Your task to perform on an android device: What is the recent news? Image 0: 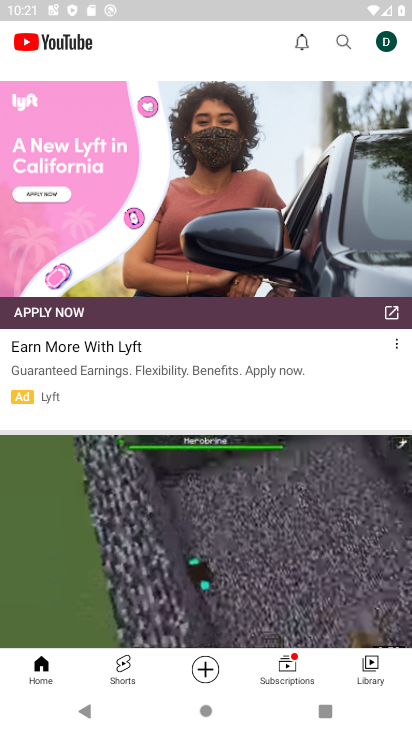
Step 0: press home button
Your task to perform on an android device: What is the recent news? Image 1: 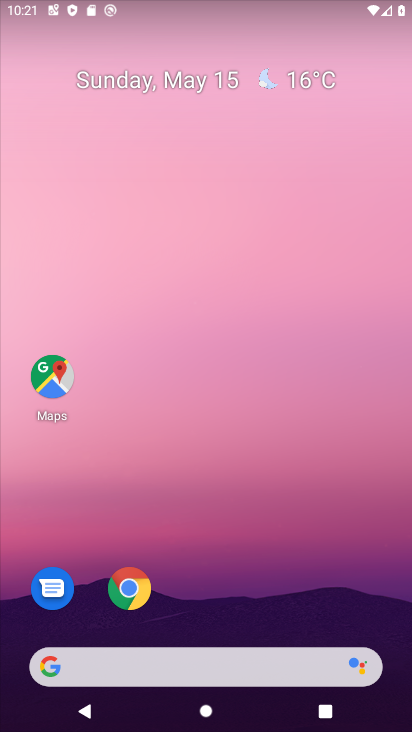
Step 1: click (209, 662)
Your task to perform on an android device: What is the recent news? Image 2: 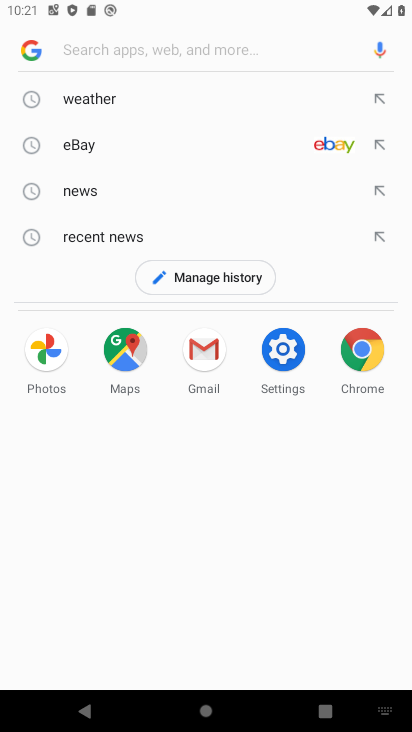
Step 2: click (140, 243)
Your task to perform on an android device: What is the recent news? Image 3: 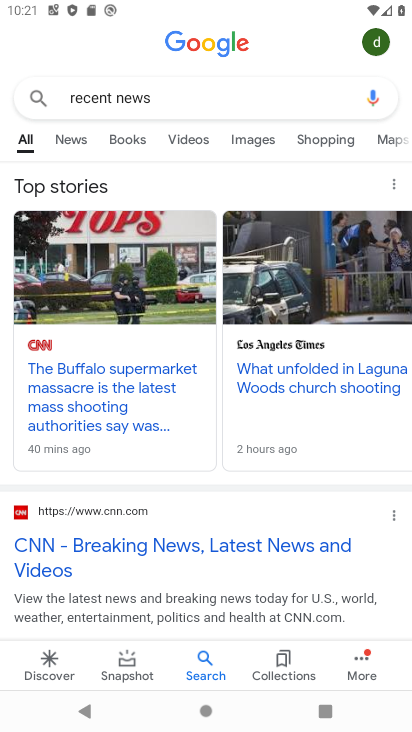
Step 3: task complete